Your task to perform on an android device: check battery use Image 0: 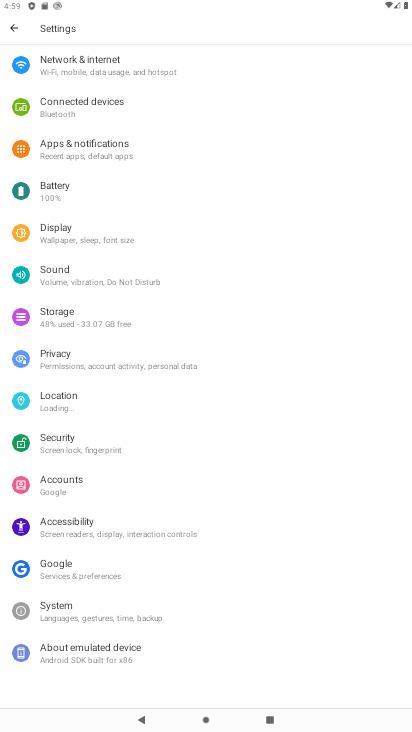
Step 0: click (62, 180)
Your task to perform on an android device: check battery use Image 1: 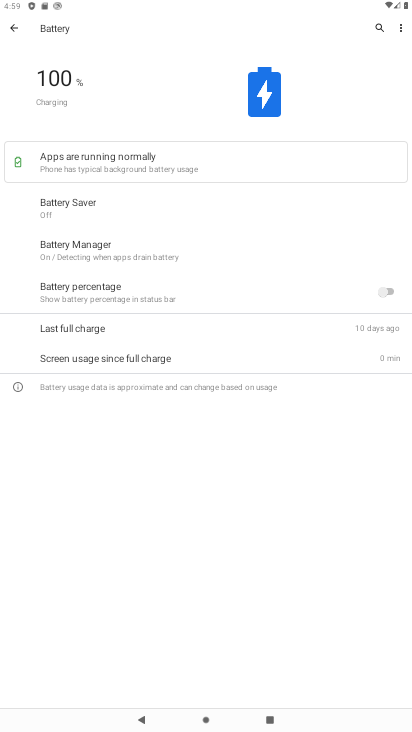
Step 1: click (404, 21)
Your task to perform on an android device: check battery use Image 2: 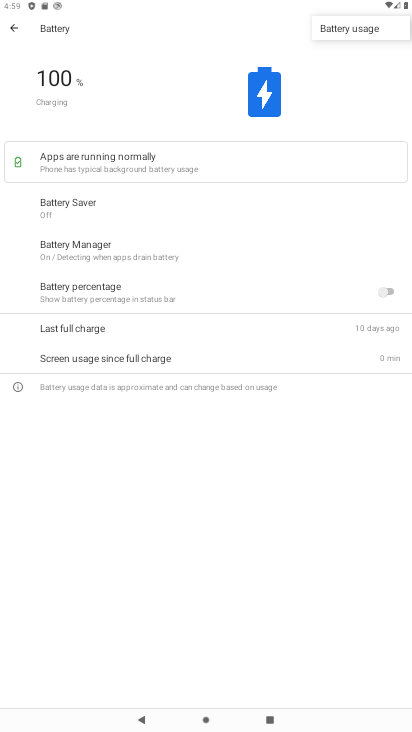
Step 2: click (344, 35)
Your task to perform on an android device: check battery use Image 3: 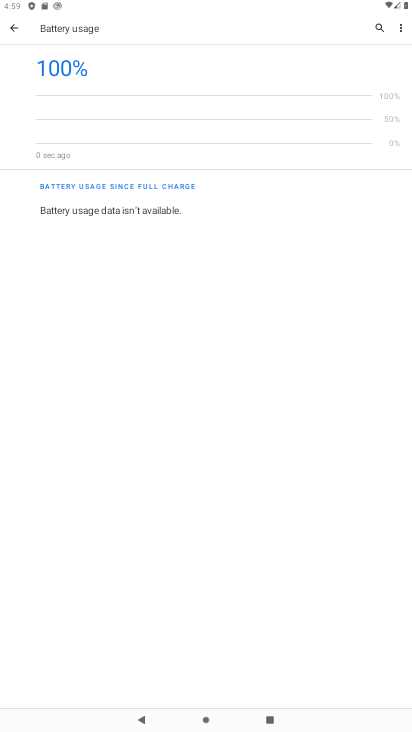
Step 3: task complete